Your task to perform on an android device: Open Amazon Image 0: 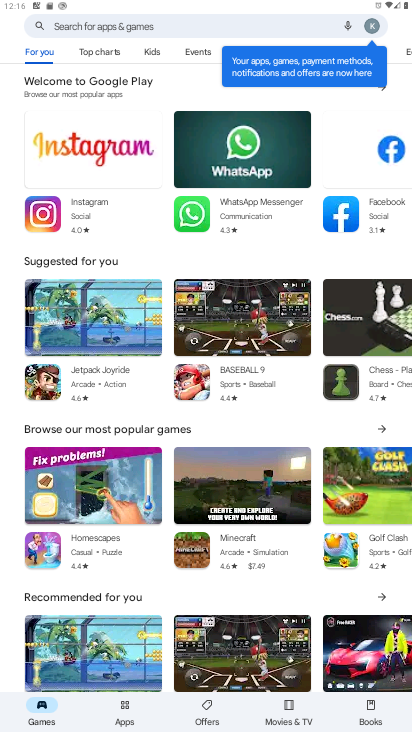
Step 0: press home button
Your task to perform on an android device: Open Amazon Image 1: 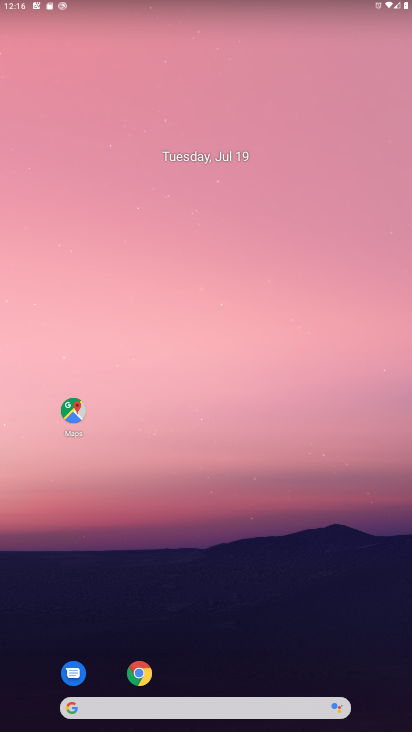
Step 1: click (150, 679)
Your task to perform on an android device: Open Amazon Image 2: 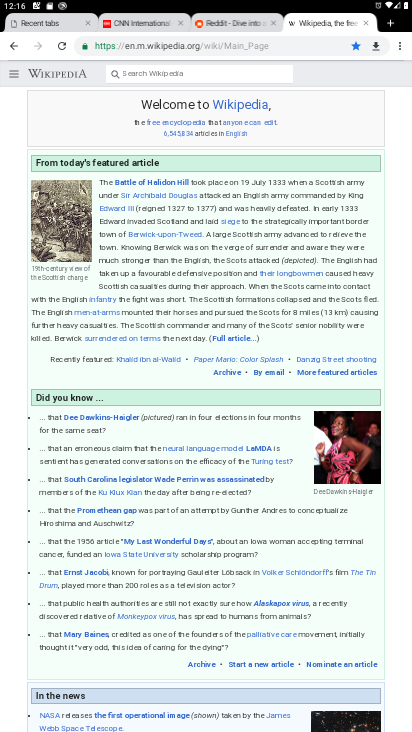
Step 2: click (385, 17)
Your task to perform on an android device: Open Amazon Image 3: 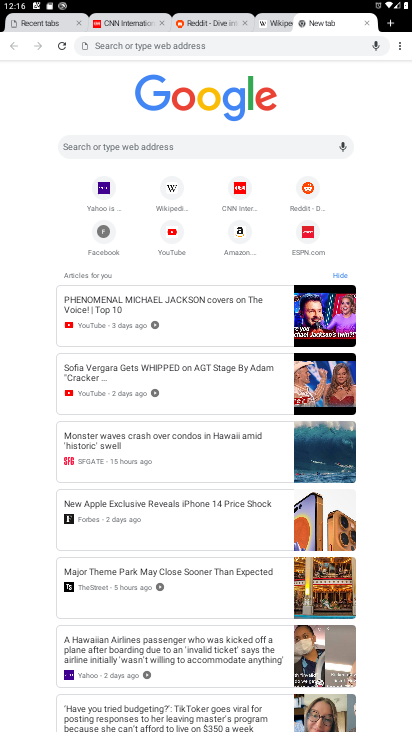
Step 3: click (240, 235)
Your task to perform on an android device: Open Amazon Image 4: 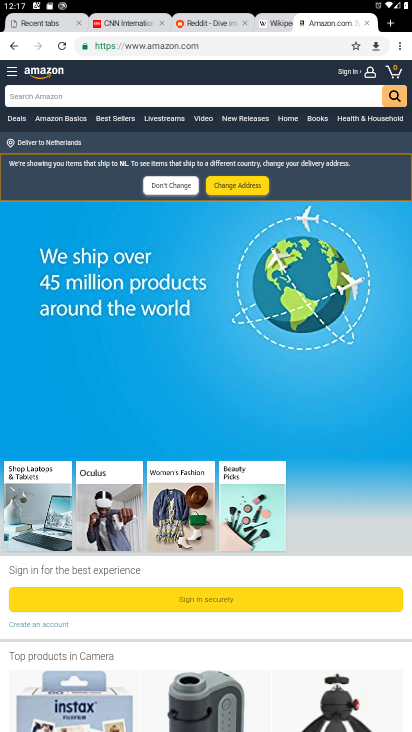
Step 4: task complete